Your task to perform on an android device: toggle notifications settings in the gmail app Image 0: 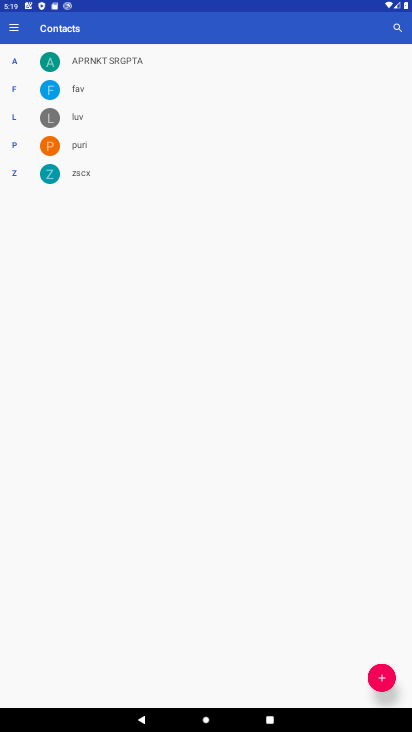
Step 0: press home button
Your task to perform on an android device: toggle notifications settings in the gmail app Image 1: 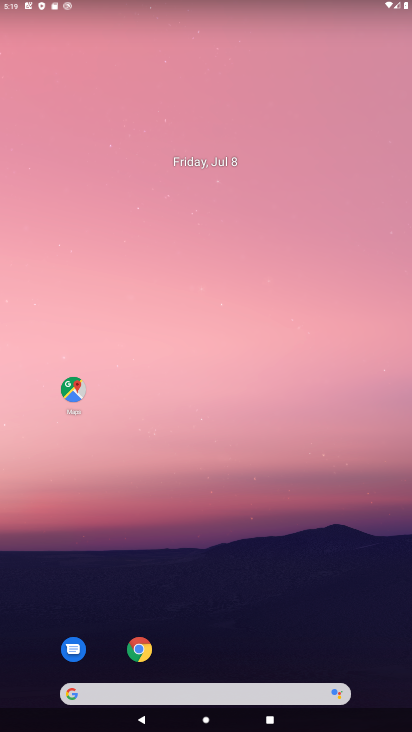
Step 1: drag from (322, 618) to (279, 65)
Your task to perform on an android device: toggle notifications settings in the gmail app Image 2: 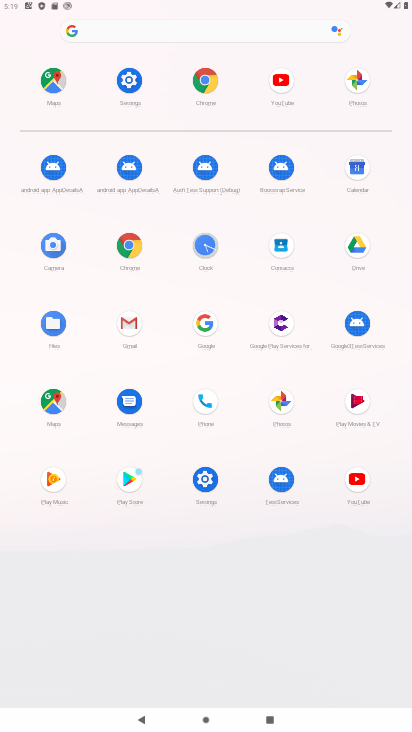
Step 2: click (129, 325)
Your task to perform on an android device: toggle notifications settings in the gmail app Image 3: 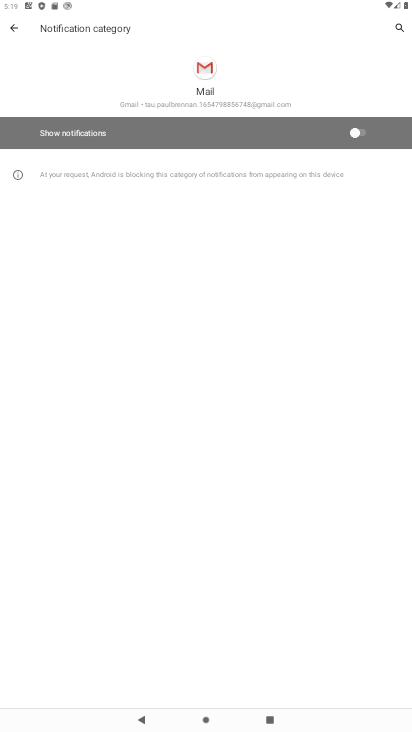
Step 3: click (357, 127)
Your task to perform on an android device: toggle notifications settings in the gmail app Image 4: 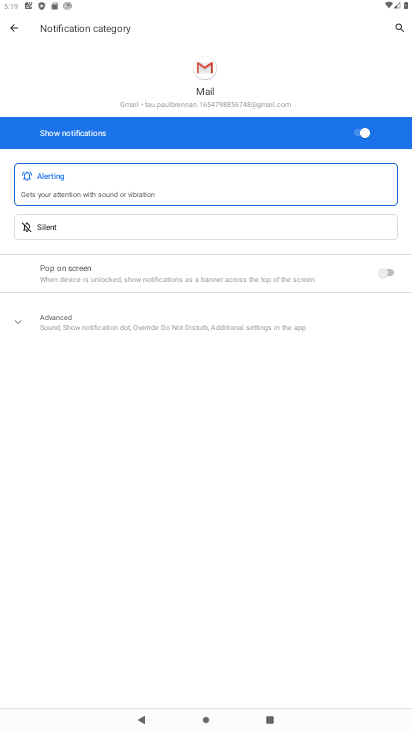
Step 4: task complete